Your task to perform on an android device: turn off javascript in the chrome app Image 0: 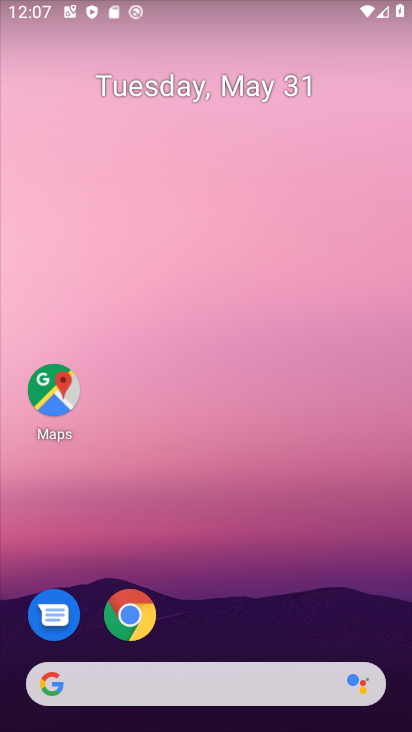
Step 0: drag from (380, 633) to (378, 192)
Your task to perform on an android device: turn off javascript in the chrome app Image 1: 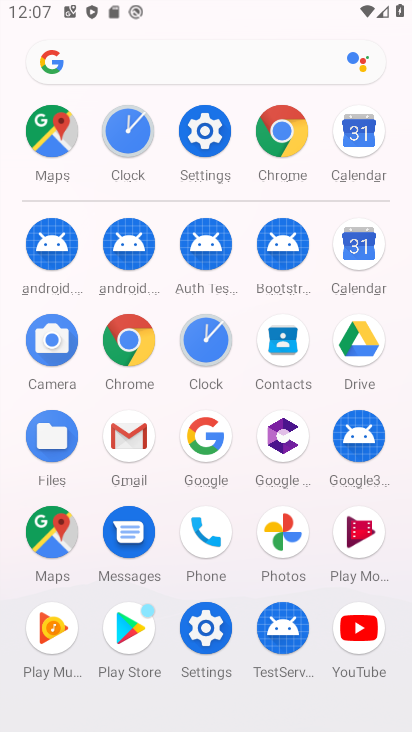
Step 1: click (144, 348)
Your task to perform on an android device: turn off javascript in the chrome app Image 2: 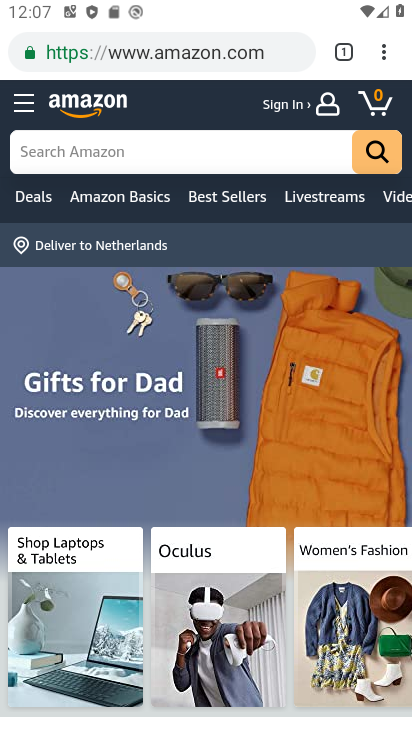
Step 2: click (384, 63)
Your task to perform on an android device: turn off javascript in the chrome app Image 3: 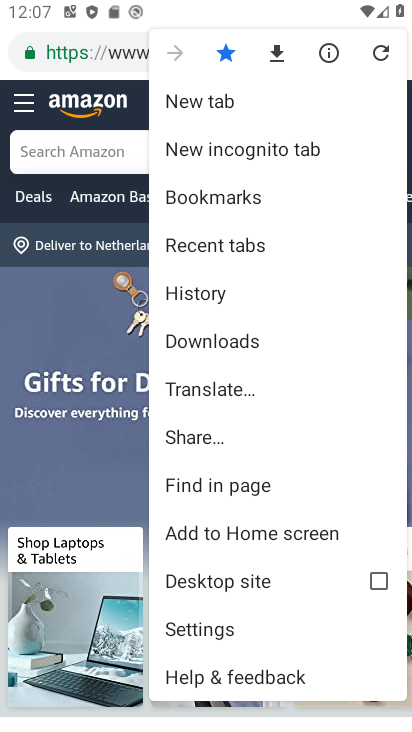
Step 3: drag from (358, 414) to (346, 240)
Your task to perform on an android device: turn off javascript in the chrome app Image 4: 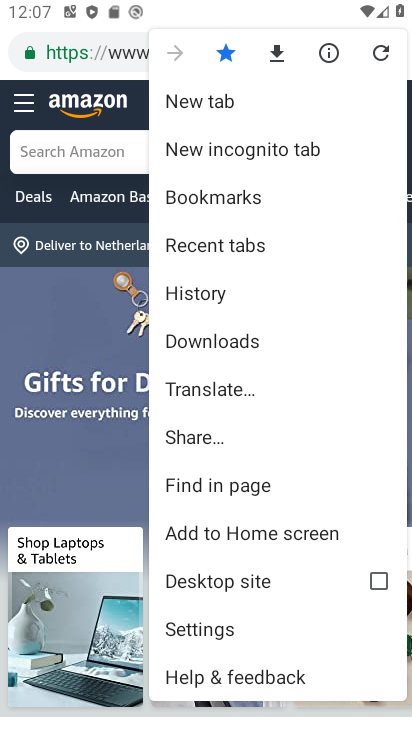
Step 4: click (206, 637)
Your task to perform on an android device: turn off javascript in the chrome app Image 5: 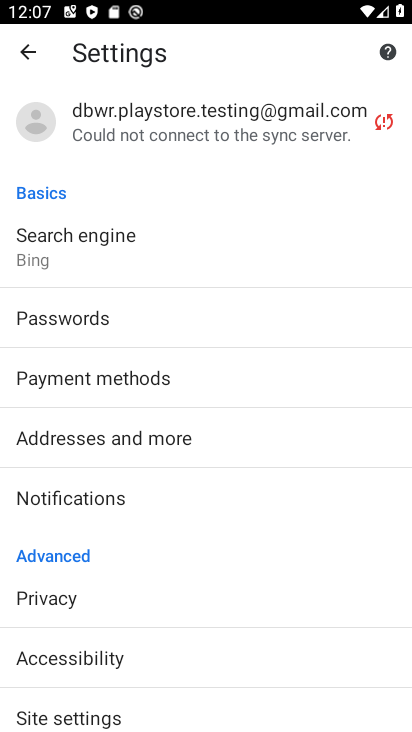
Step 5: drag from (306, 545) to (313, 482)
Your task to perform on an android device: turn off javascript in the chrome app Image 6: 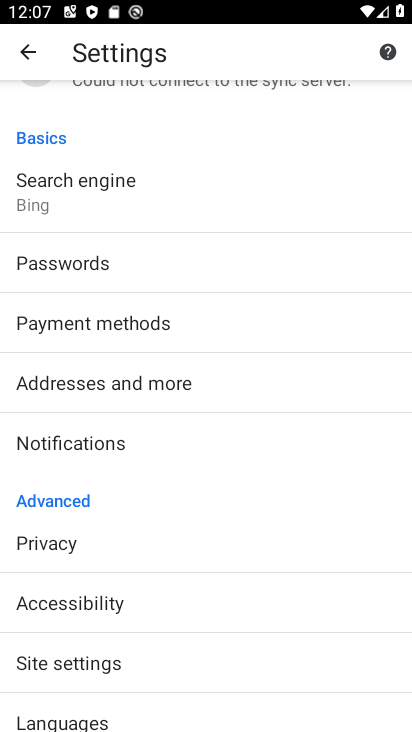
Step 6: drag from (325, 590) to (335, 508)
Your task to perform on an android device: turn off javascript in the chrome app Image 7: 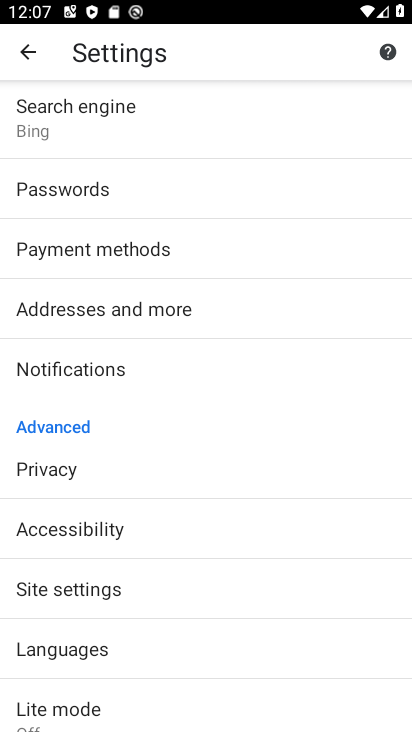
Step 7: drag from (346, 618) to (342, 501)
Your task to perform on an android device: turn off javascript in the chrome app Image 8: 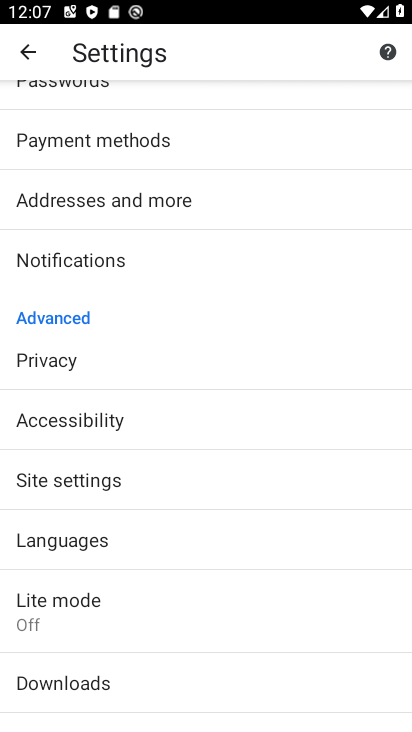
Step 8: drag from (332, 644) to (327, 539)
Your task to perform on an android device: turn off javascript in the chrome app Image 9: 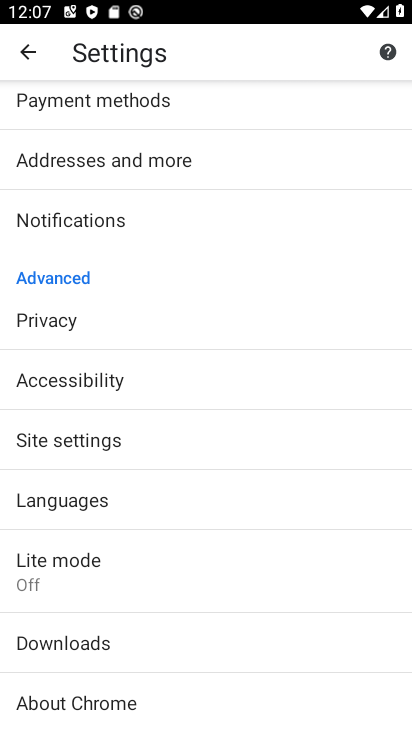
Step 9: click (295, 454)
Your task to perform on an android device: turn off javascript in the chrome app Image 10: 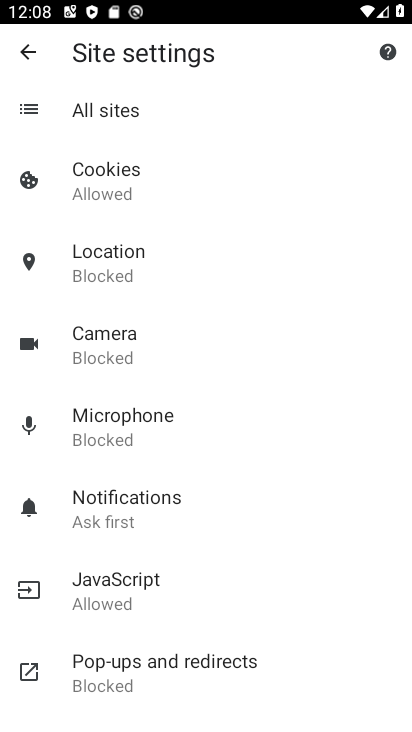
Step 10: drag from (298, 524) to (320, 460)
Your task to perform on an android device: turn off javascript in the chrome app Image 11: 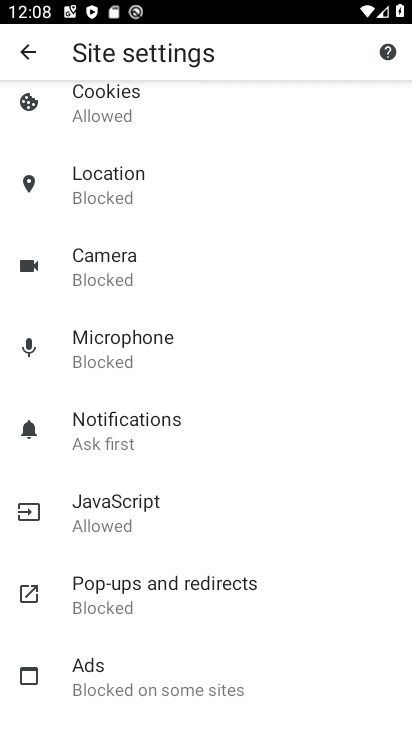
Step 11: drag from (328, 584) to (325, 531)
Your task to perform on an android device: turn off javascript in the chrome app Image 12: 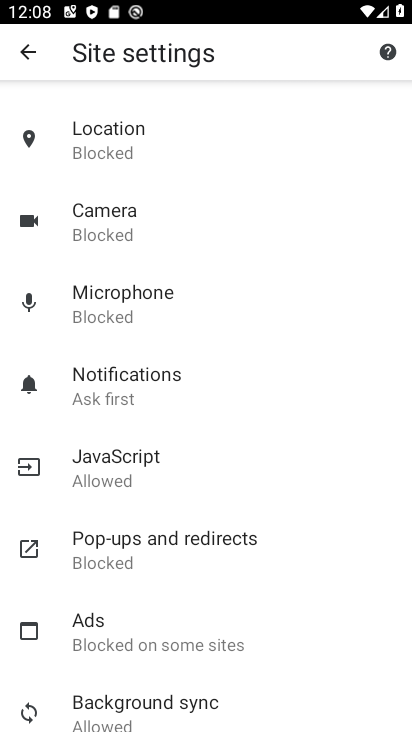
Step 12: click (179, 478)
Your task to perform on an android device: turn off javascript in the chrome app Image 13: 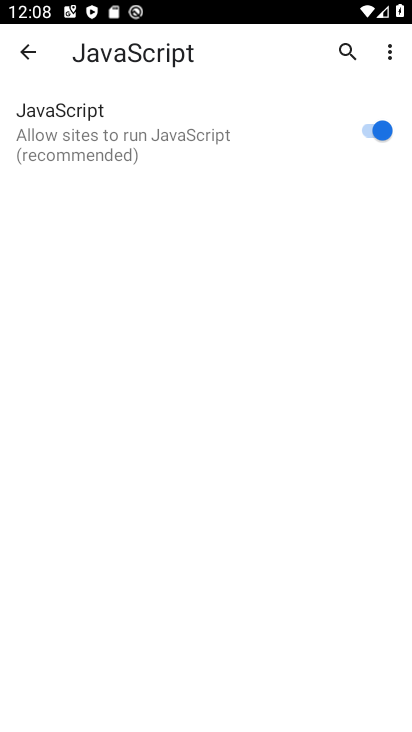
Step 13: click (369, 141)
Your task to perform on an android device: turn off javascript in the chrome app Image 14: 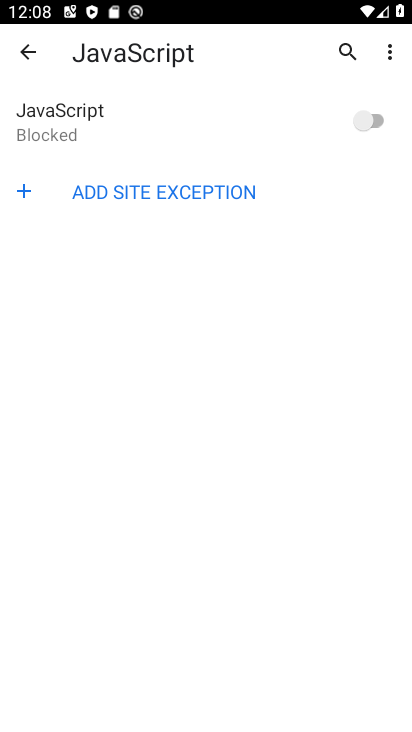
Step 14: task complete